Your task to perform on an android device: Open Google Maps and go to "Timeline" Image 0: 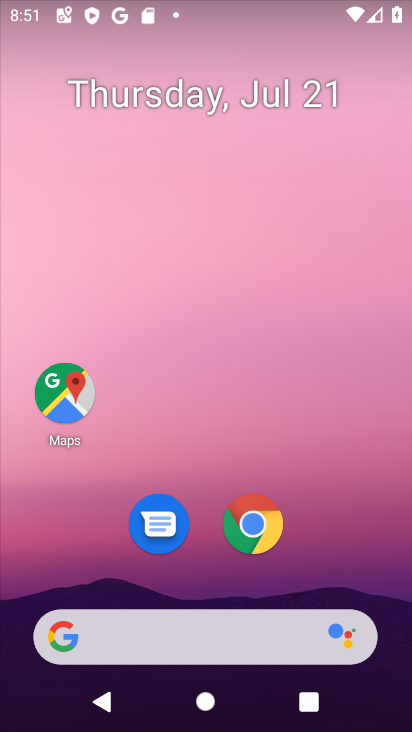
Step 0: press home button
Your task to perform on an android device: Open Google Maps and go to "Timeline" Image 1: 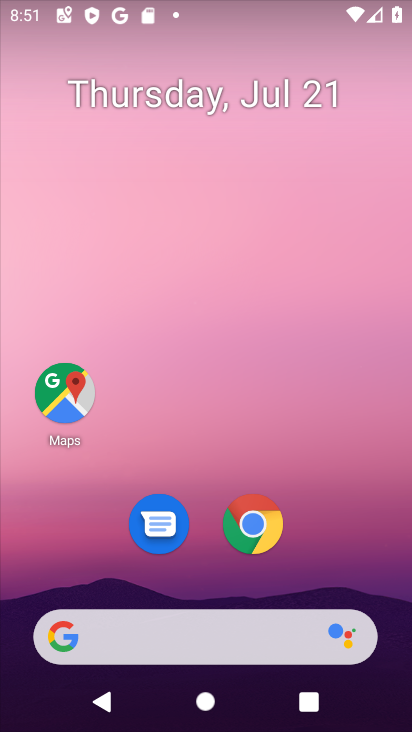
Step 1: click (189, 642)
Your task to perform on an android device: Open Google Maps and go to "Timeline" Image 2: 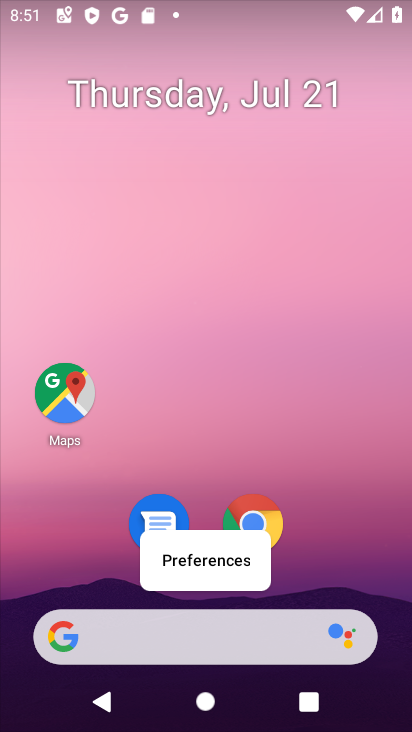
Step 2: click (63, 394)
Your task to perform on an android device: Open Google Maps and go to "Timeline" Image 3: 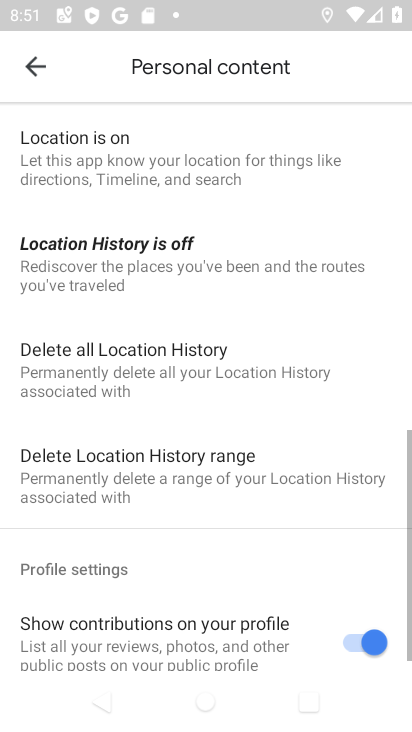
Step 3: click (39, 55)
Your task to perform on an android device: Open Google Maps and go to "Timeline" Image 4: 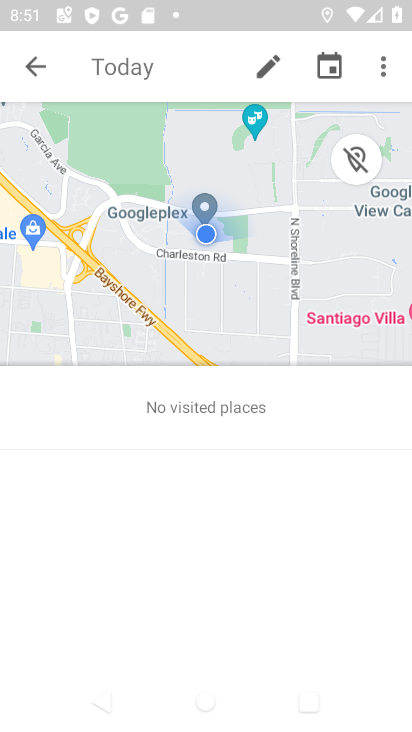
Step 4: task complete